Your task to perform on an android device: turn on notifications settings in the gmail app Image 0: 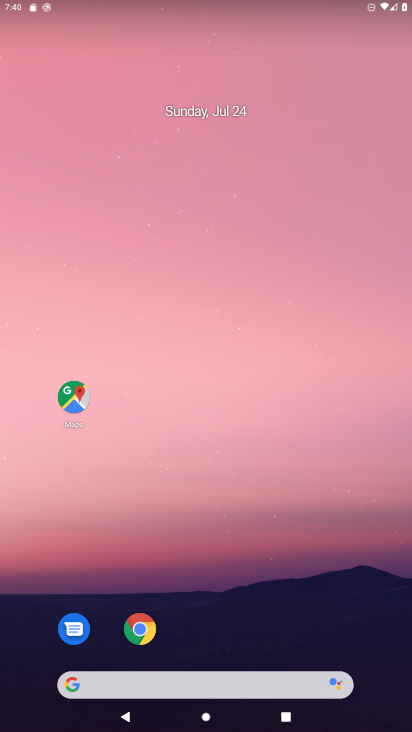
Step 0: drag from (337, 614) to (176, 6)
Your task to perform on an android device: turn on notifications settings in the gmail app Image 1: 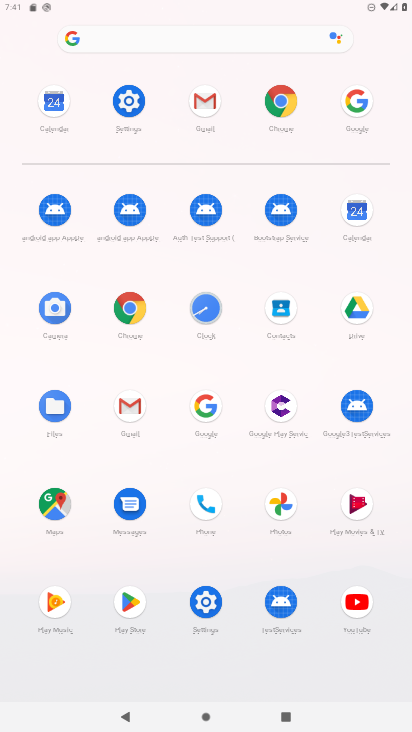
Step 1: click (120, 394)
Your task to perform on an android device: turn on notifications settings in the gmail app Image 2: 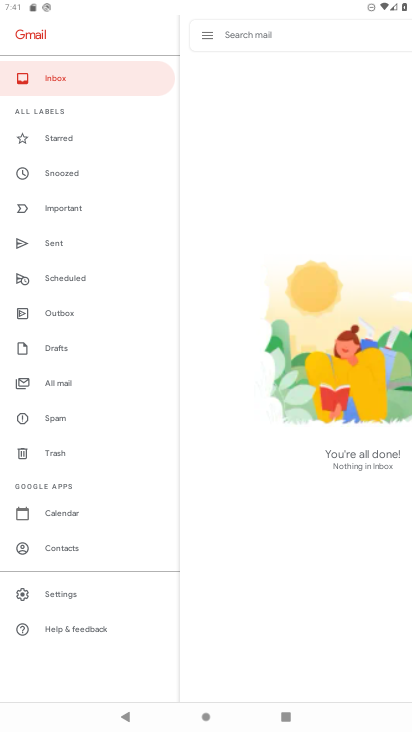
Step 2: click (62, 587)
Your task to perform on an android device: turn on notifications settings in the gmail app Image 3: 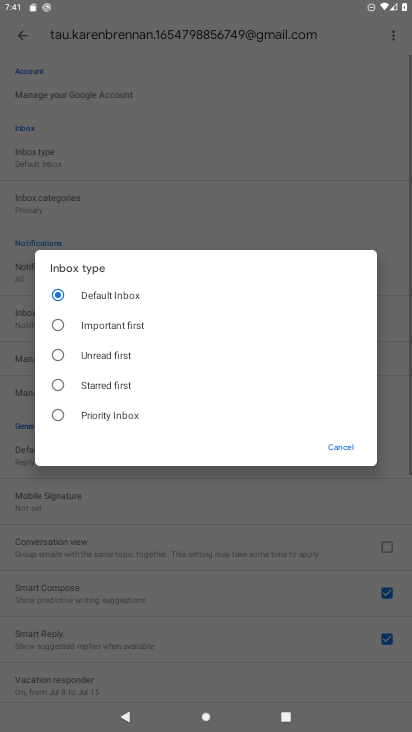
Step 3: click (359, 445)
Your task to perform on an android device: turn on notifications settings in the gmail app Image 4: 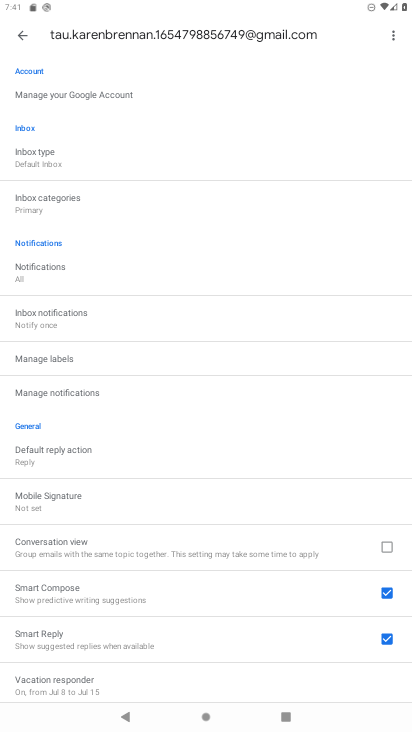
Step 4: click (72, 270)
Your task to perform on an android device: turn on notifications settings in the gmail app Image 5: 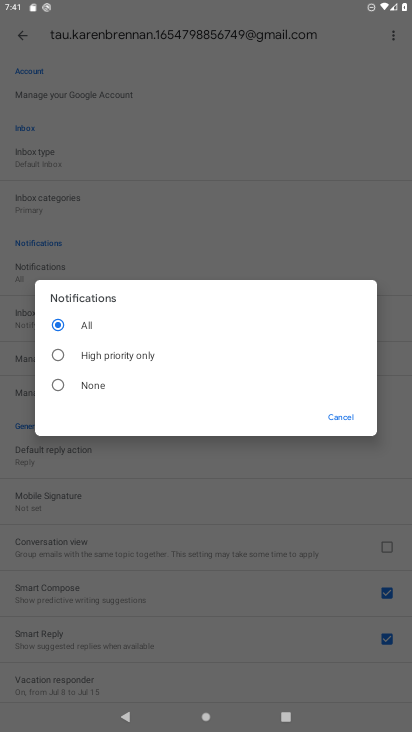
Step 5: click (71, 328)
Your task to perform on an android device: turn on notifications settings in the gmail app Image 6: 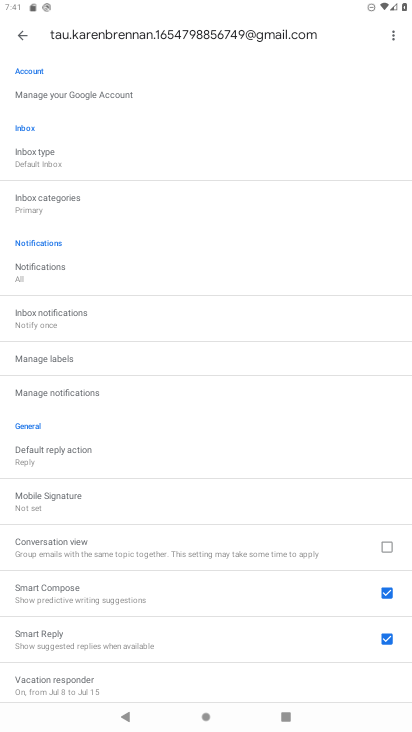
Step 6: task complete